Your task to perform on an android device: turn notification dots on Image 0: 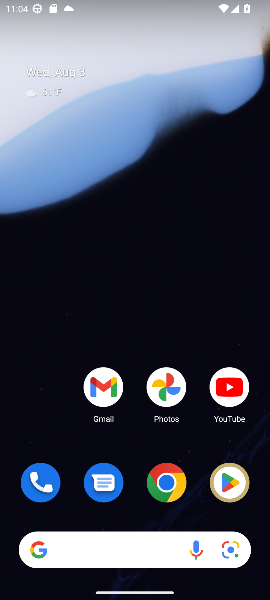
Step 0: drag from (137, 523) to (145, 61)
Your task to perform on an android device: turn notification dots on Image 1: 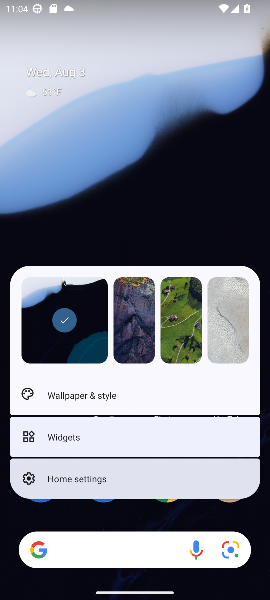
Step 1: click (109, 178)
Your task to perform on an android device: turn notification dots on Image 2: 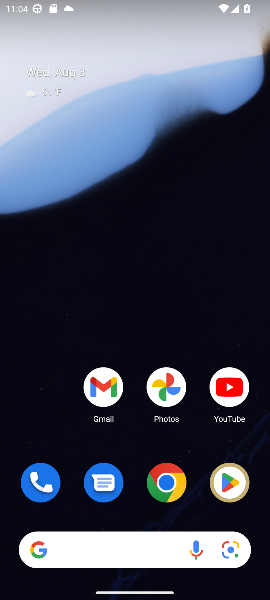
Step 2: drag from (74, 531) to (87, 148)
Your task to perform on an android device: turn notification dots on Image 3: 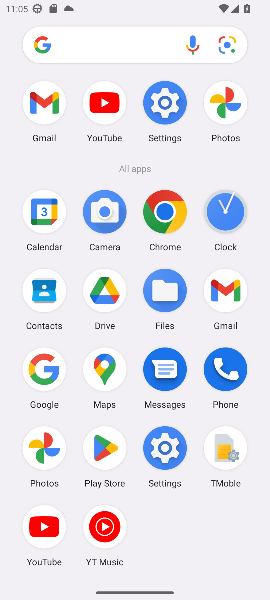
Step 3: click (152, 123)
Your task to perform on an android device: turn notification dots on Image 4: 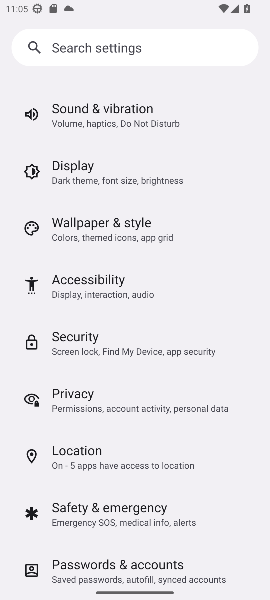
Step 4: drag from (189, 137) to (172, 396)
Your task to perform on an android device: turn notification dots on Image 5: 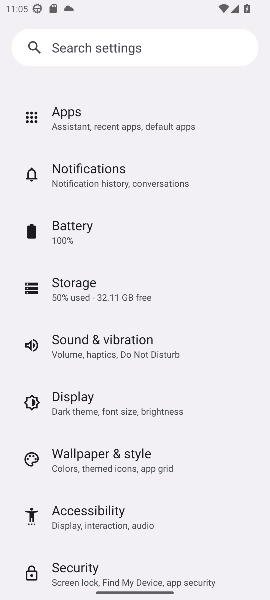
Step 5: drag from (154, 136) to (200, 434)
Your task to perform on an android device: turn notification dots on Image 6: 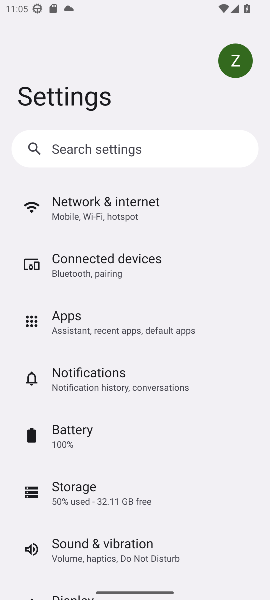
Step 6: click (148, 371)
Your task to perform on an android device: turn notification dots on Image 7: 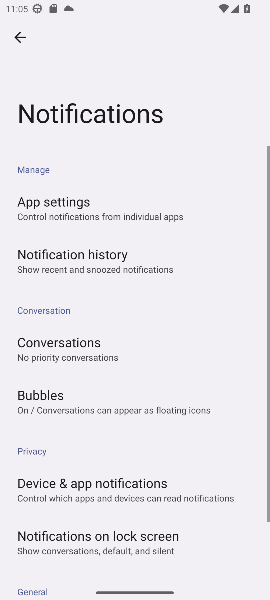
Step 7: task complete